Your task to perform on an android device: delete a single message in the gmail app Image 0: 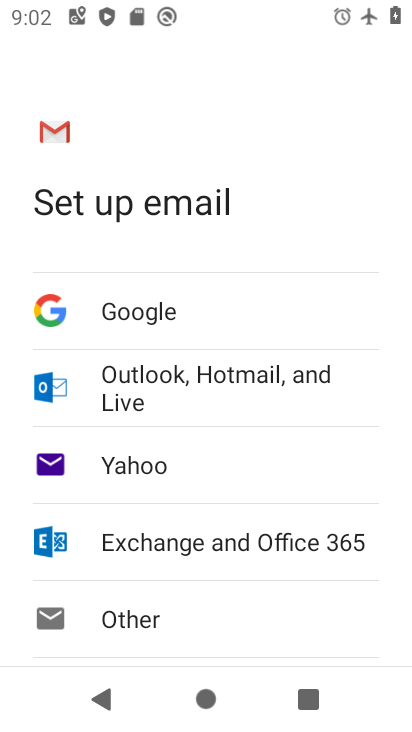
Step 0: press home button
Your task to perform on an android device: delete a single message in the gmail app Image 1: 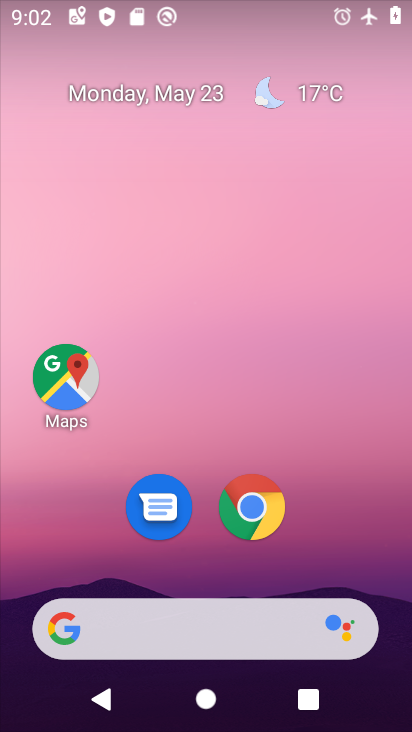
Step 1: drag from (352, 521) to (335, 20)
Your task to perform on an android device: delete a single message in the gmail app Image 2: 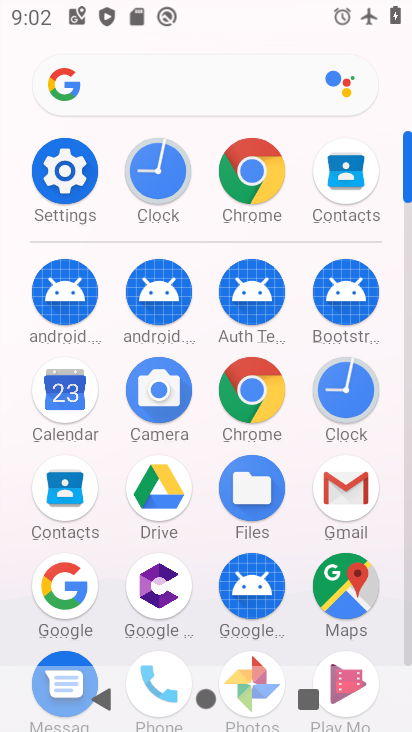
Step 2: click (329, 494)
Your task to perform on an android device: delete a single message in the gmail app Image 3: 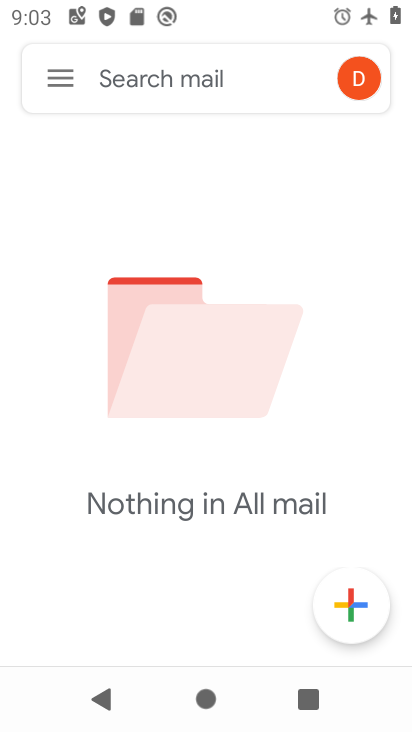
Step 3: task complete